Your task to perform on an android device: Check the settings for the Twitter app Image 0: 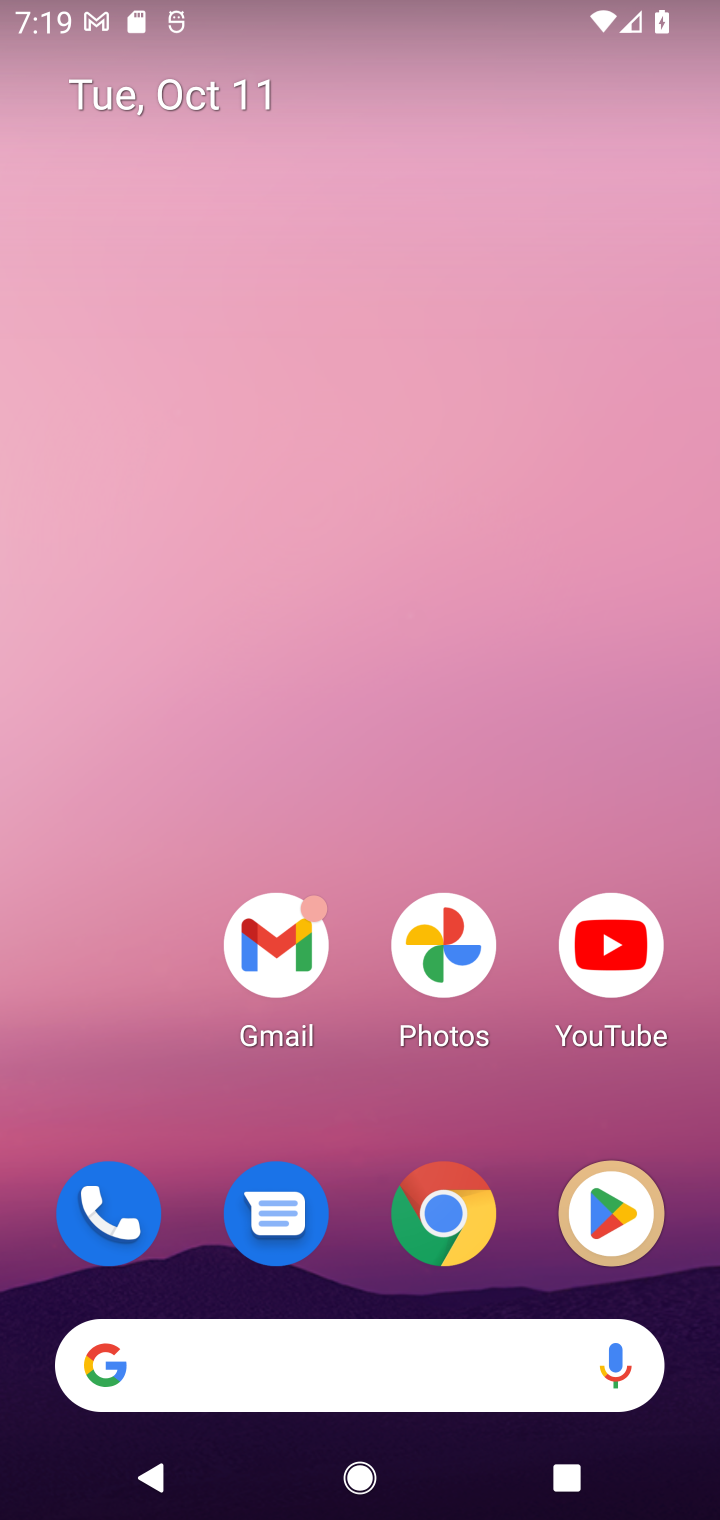
Step 0: drag from (347, 975) to (388, 450)
Your task to perform on an android device: Check the settings for the Twitter app Image 1: 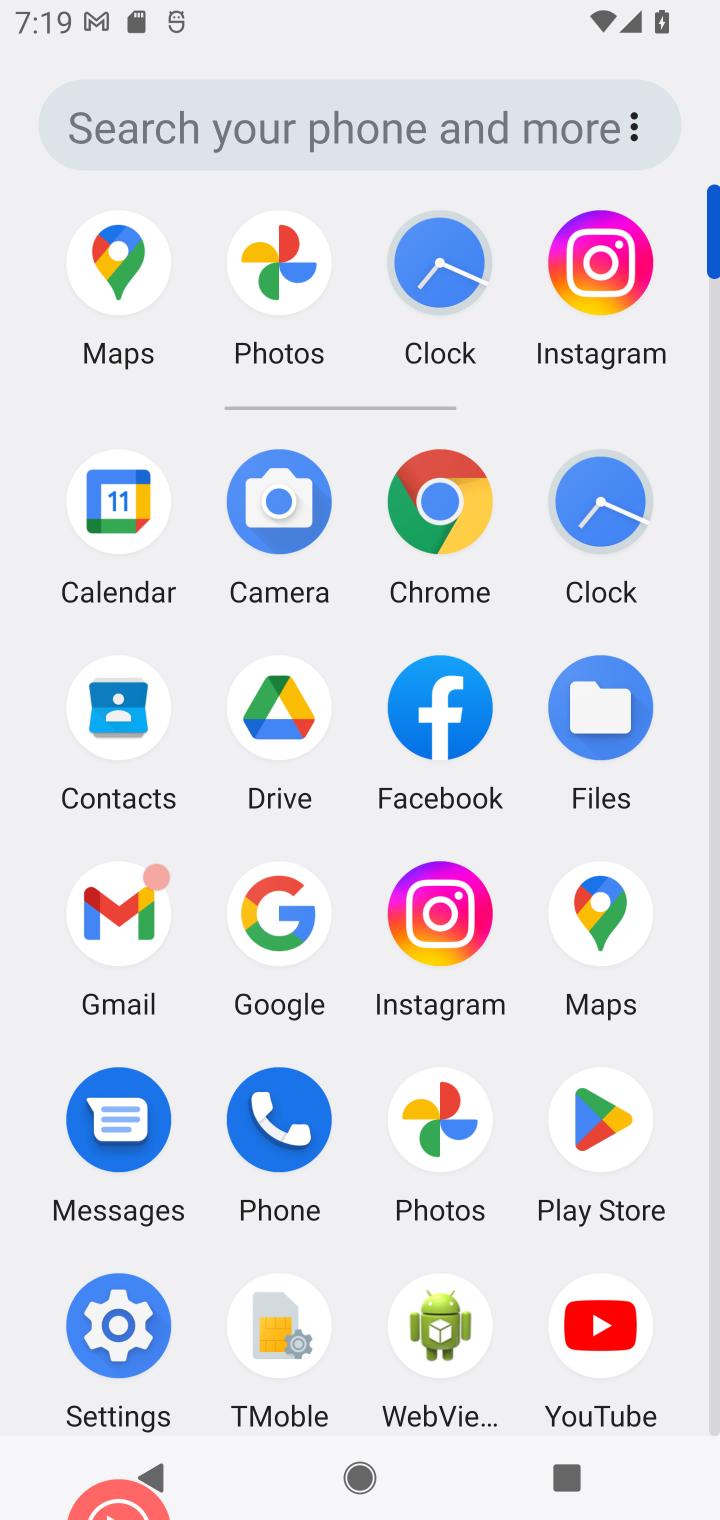
Step 1: click (635, 1105)
Your task to perform on an android device: Check the settings for the Twitter app Image 2: 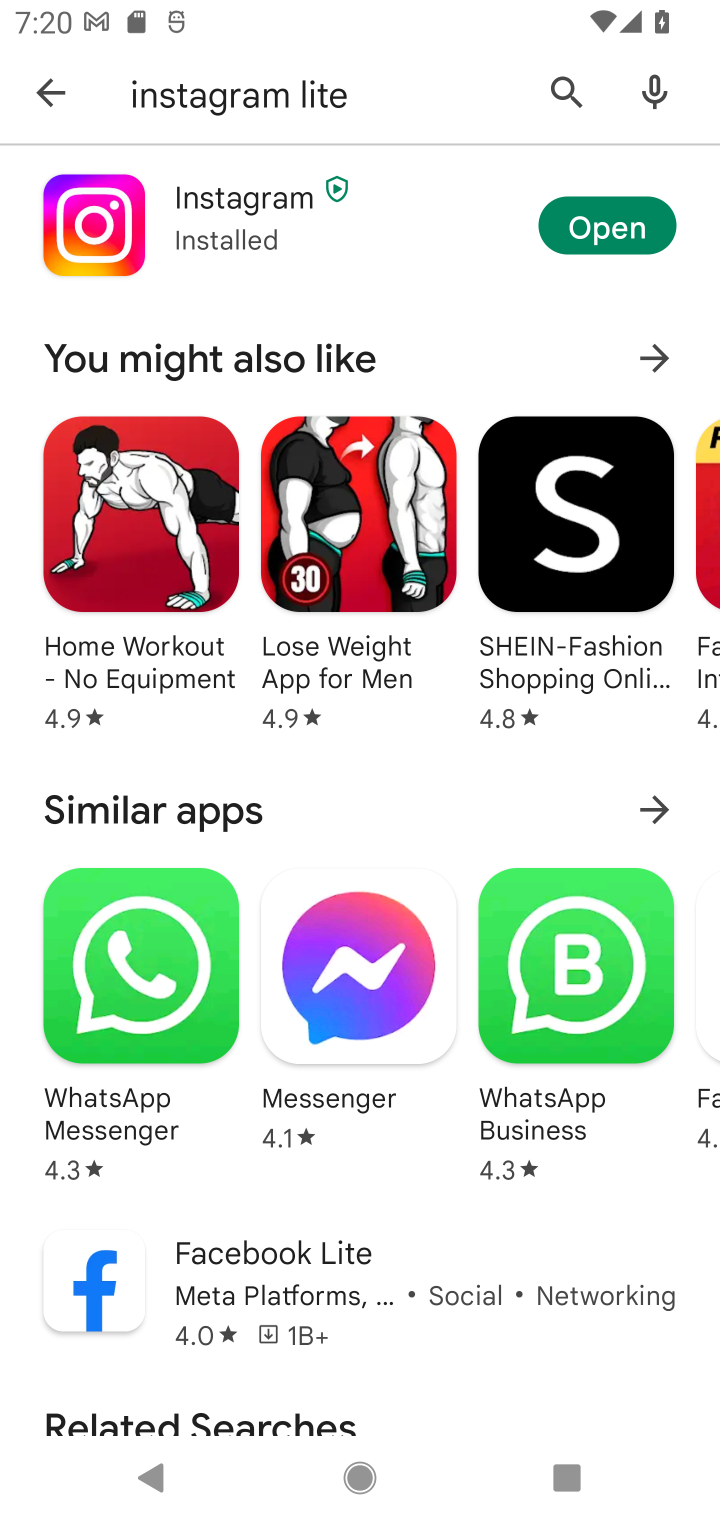
Step 2: click (71, 97)
Your task to perform on an android device: Check the settings for the Twitter app Image 3: 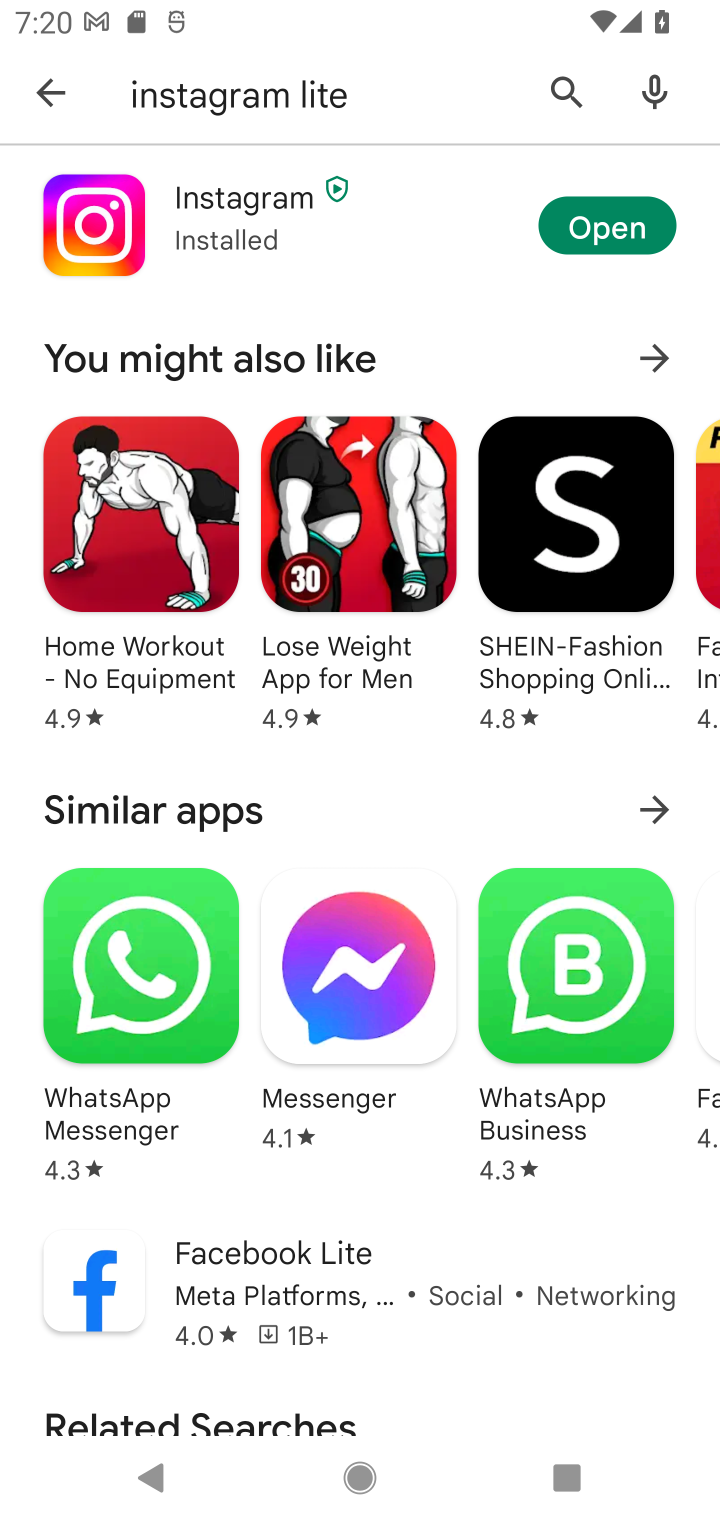
Step 3: click (554, 88)
Your task to perform on an android device: Check the settings for the Twitter app Image 4: 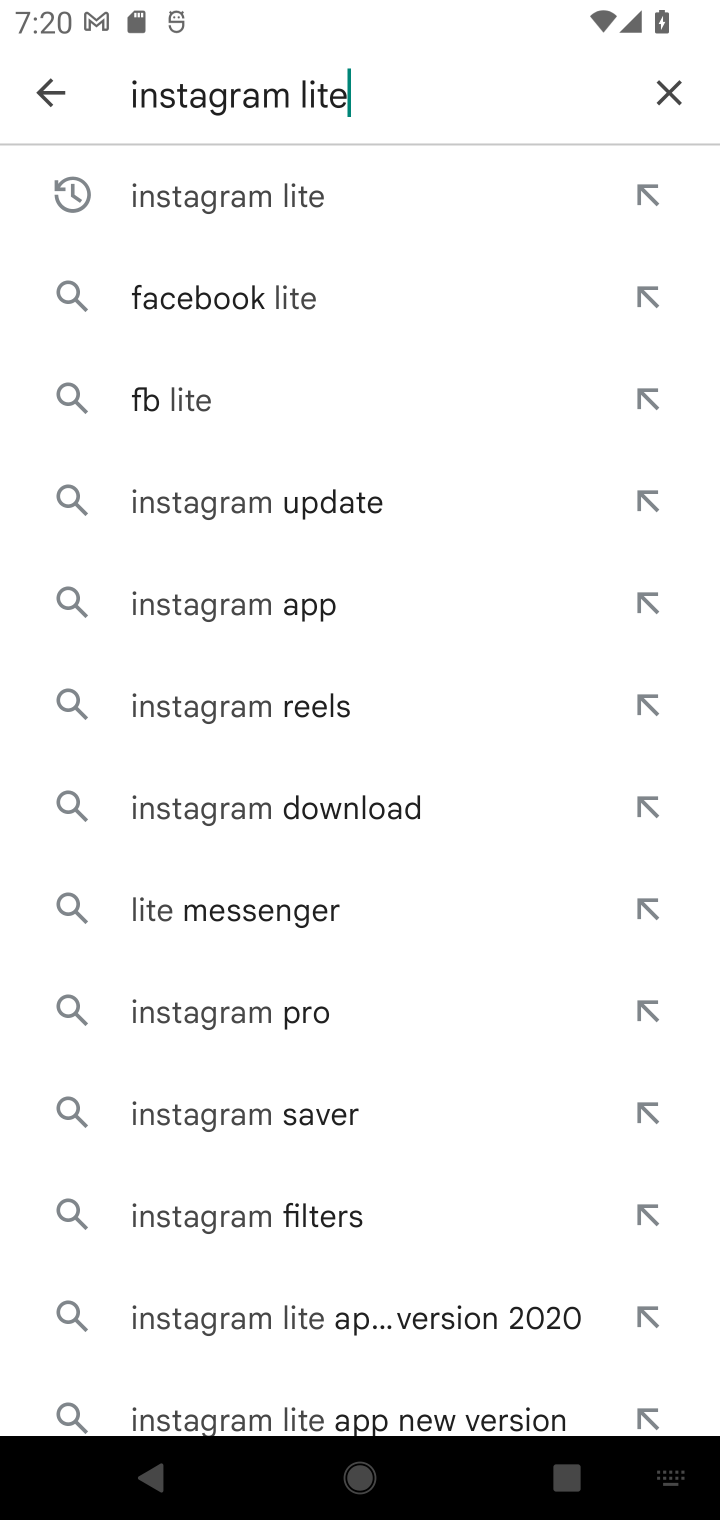
Step 4: click (676, 95)
Your task to perform on an android device: Check the settings for the Twitter app Image 5: 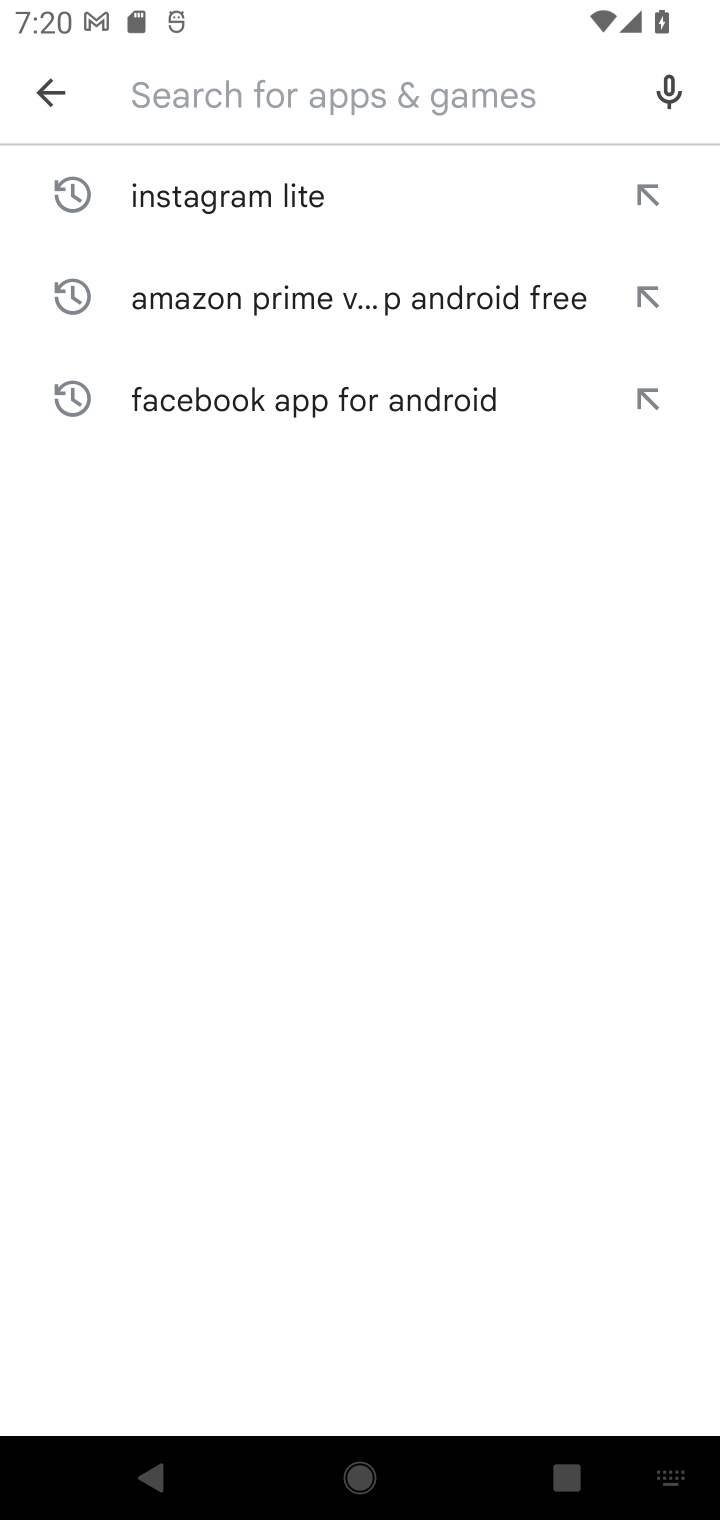
Step 5: click (336, 89)
Your task to perform on an android device: Check the settings for the Twitter app Image 6: 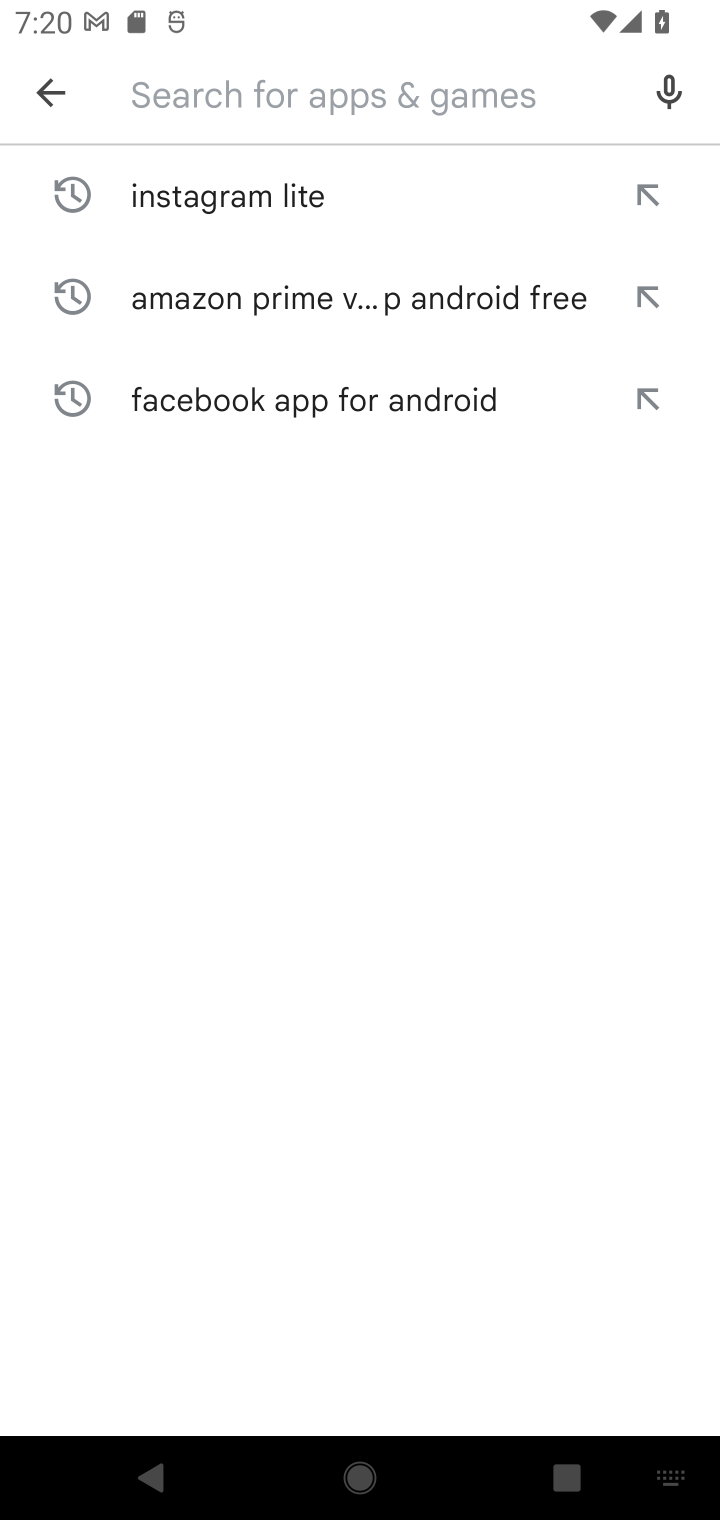
Step 6: type " Twitter app "
Your task to perform on an android device: Check the settings for the Twitter app Image 7: 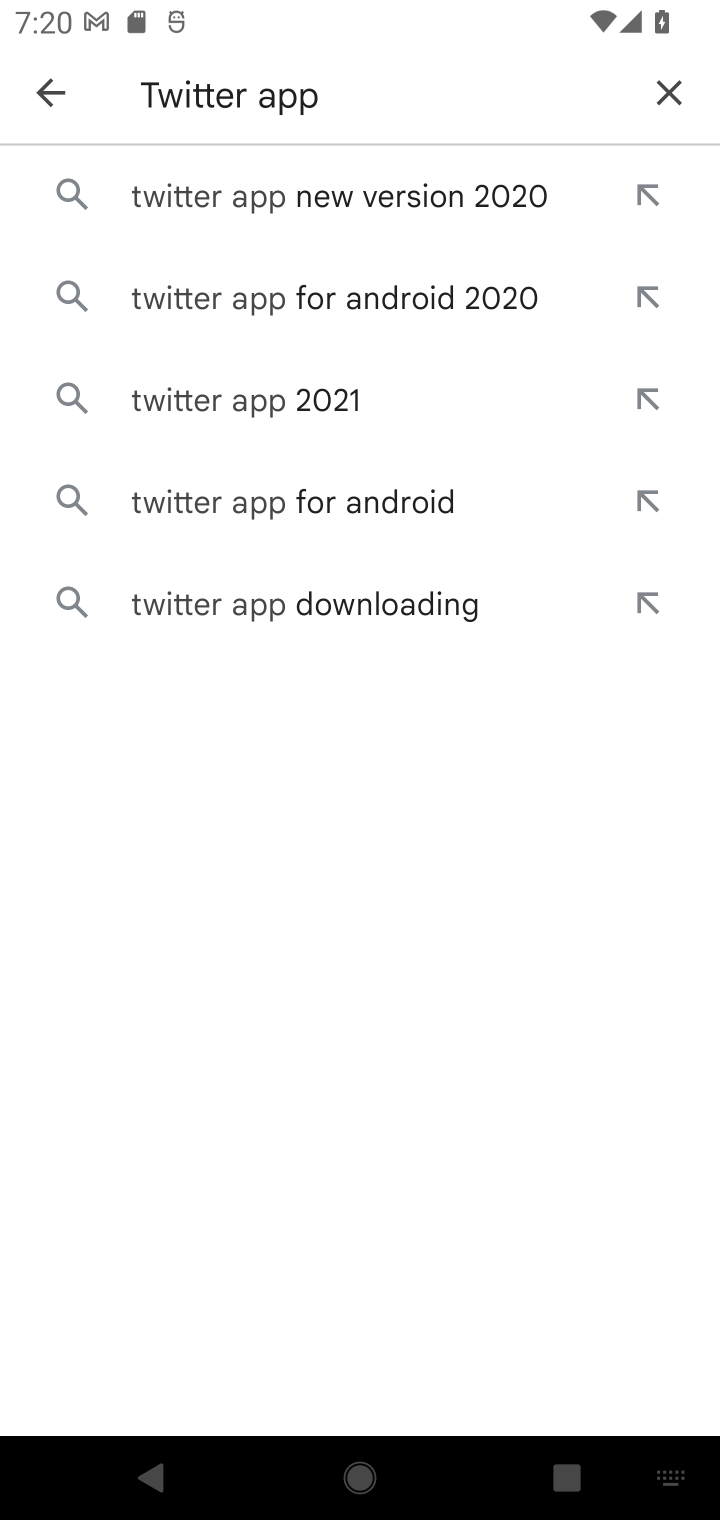
Step 7: click (231, 193)
Your task to perform on an android device: Check the settings for the Twitter app Image 8: 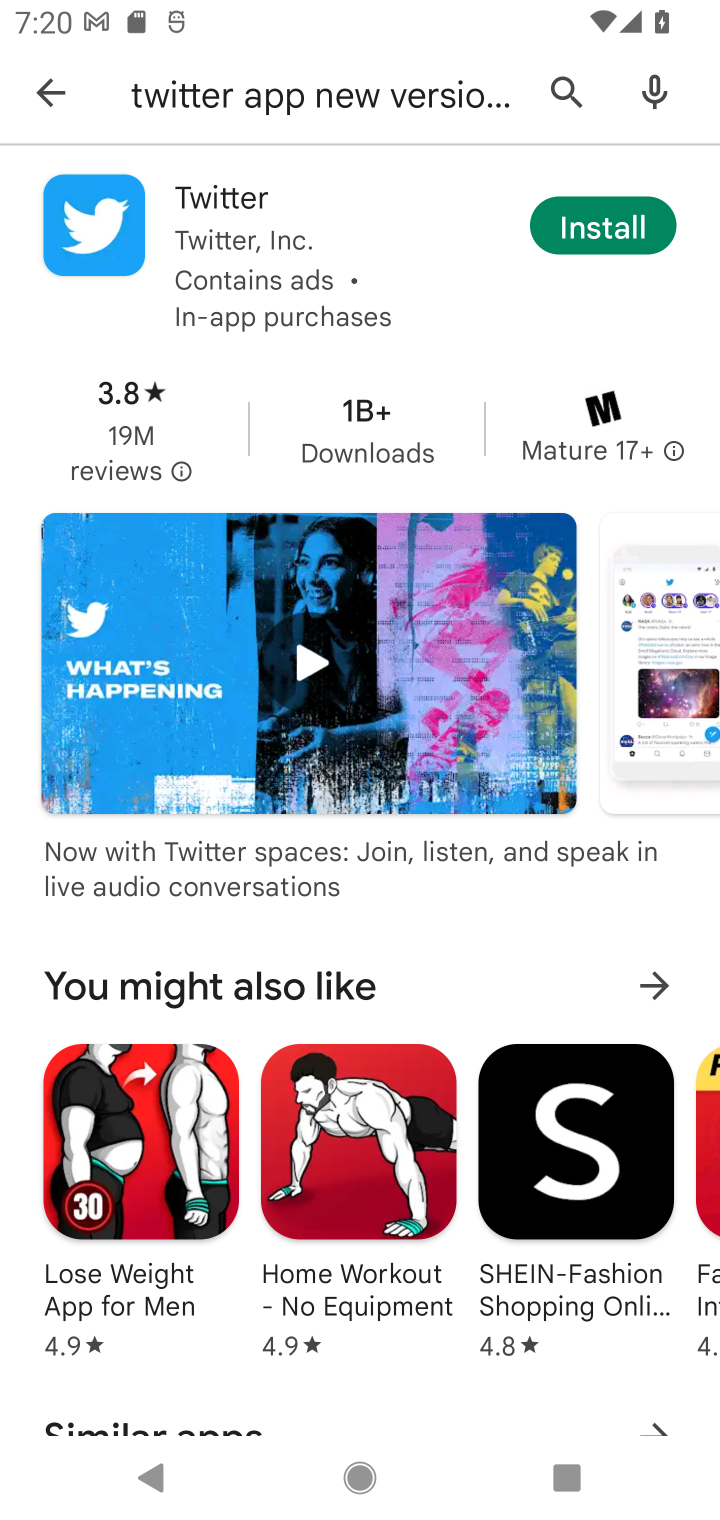
Step 8: click (582, 220)
Your task to perform on an android device: Check the settings for the Twitter app Image 9: 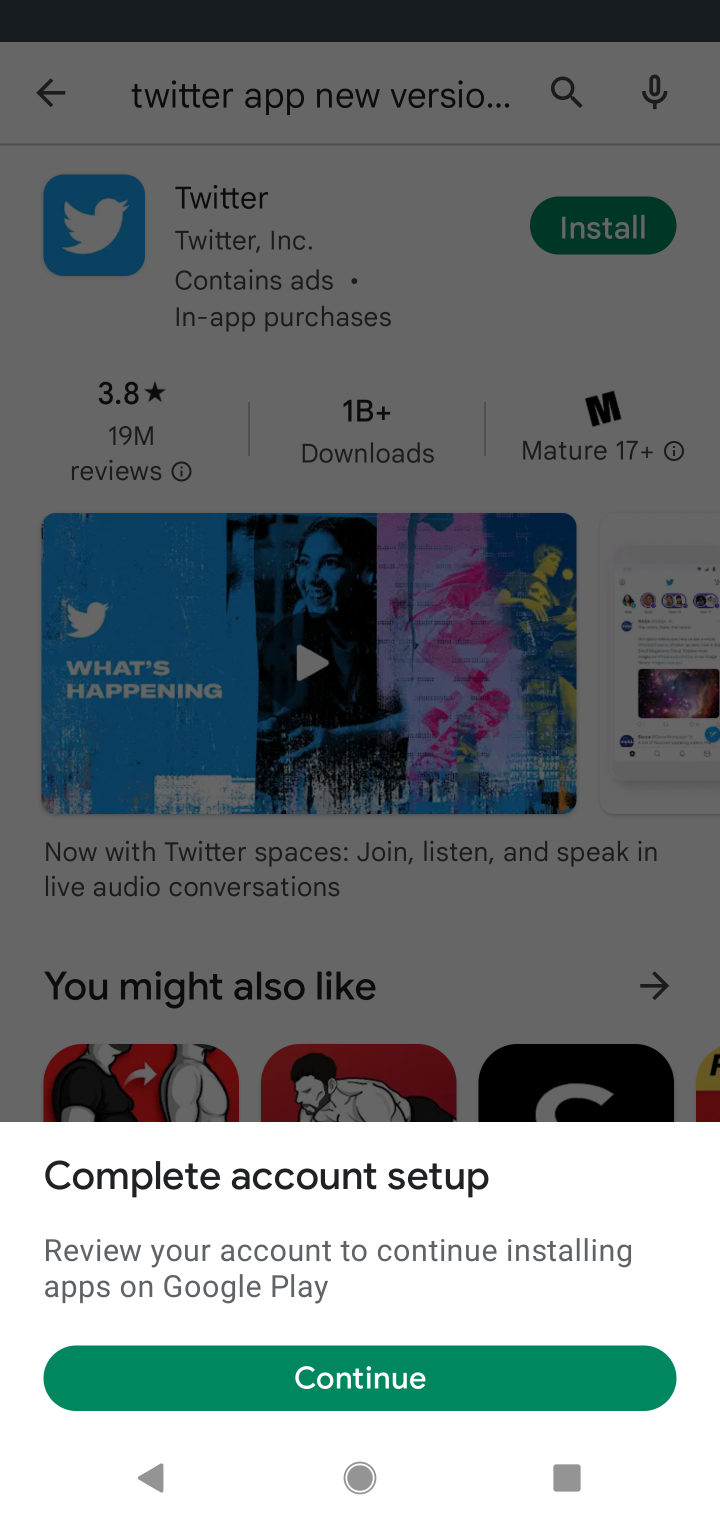
Step 9: task complete